Your task to perform on an android device: manage bookmarks in the chrome app Image 0: 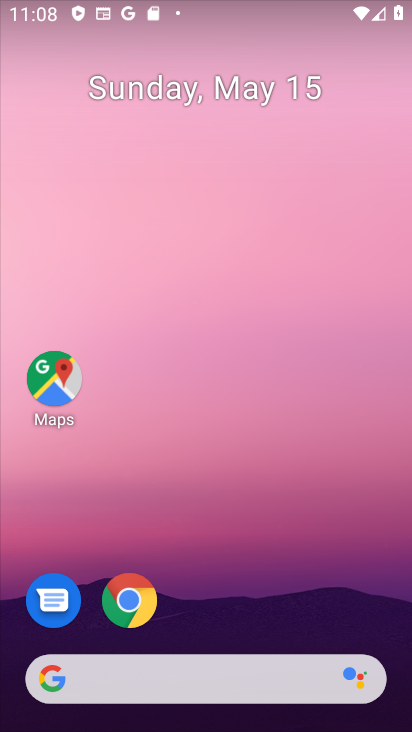
Step 0: click (134, 602)
Your task to perform on an android device: manage bookmarks in the chrome app Image 1: 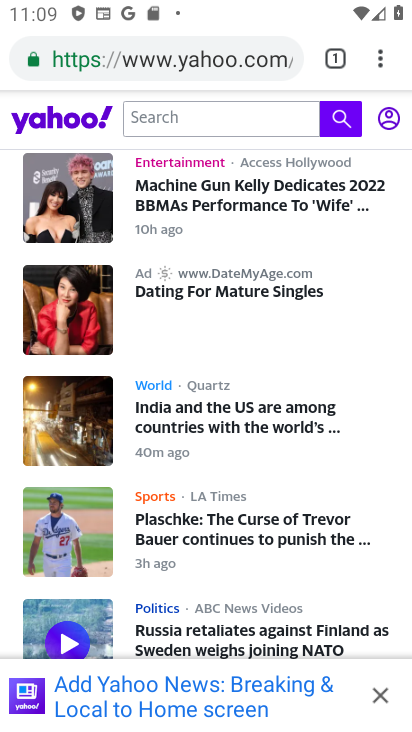
Step 1: click (380, 52)
Your task to perform on an android device: manage bookmarks in the chrome app Image 2: 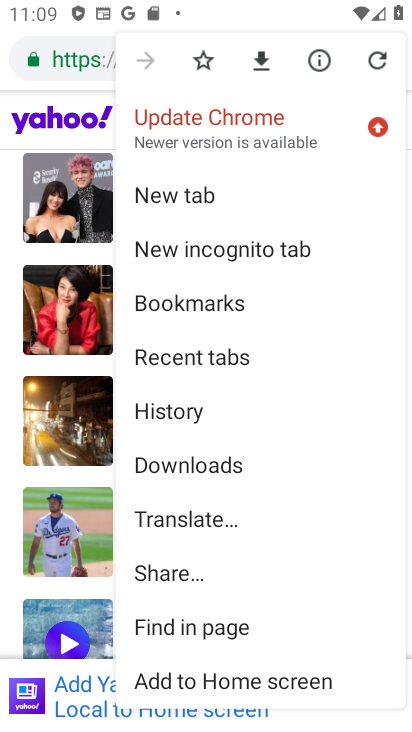
Step 2: click (195, 304)
Your task to perform on an android device: manage bookmarks in the chrome app Image 3: 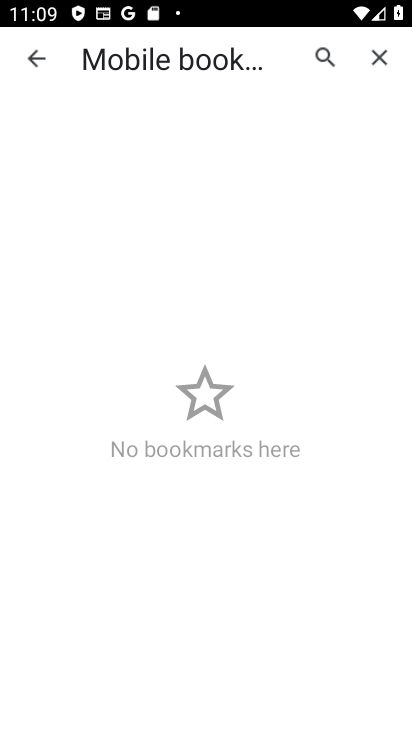
Step 3: task complete